Your task to perform on an android device: Empty the shopping cart on walmart.com. Add "asus rog" to the cart on walmart.com Image 0: 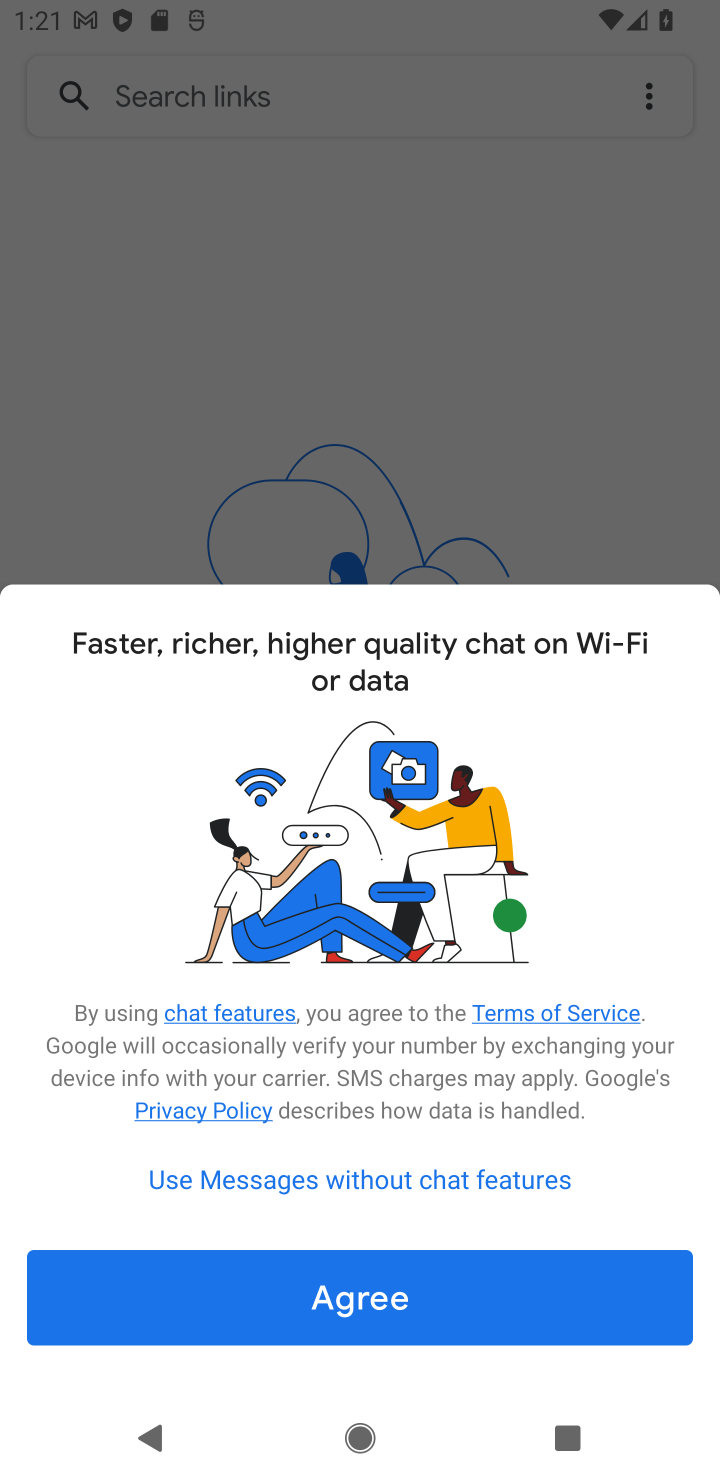
Step 0: press home button
Your task to perform on an android device: Empty the shopping cart on walmart.com. Add "asus rog" to the cart on walmart.com Image 1: 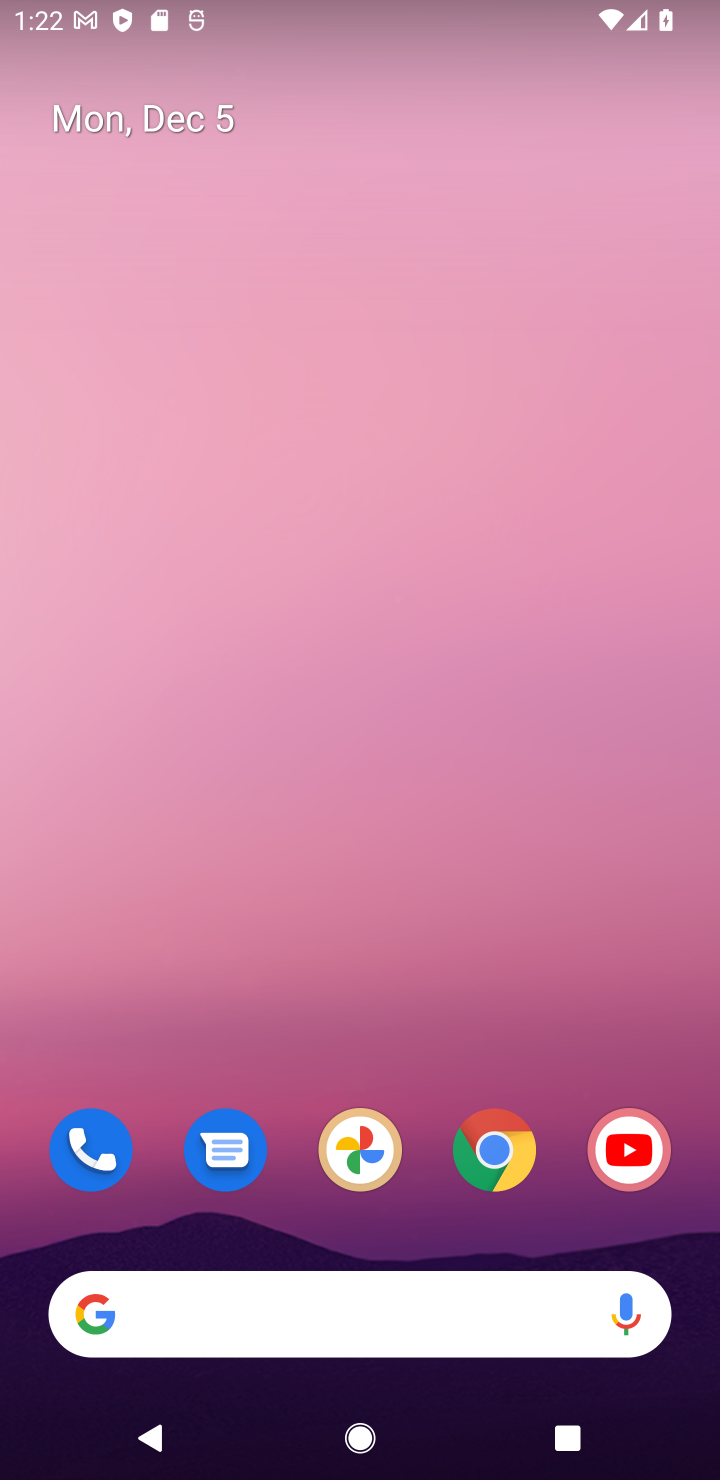
Step 1: click (503, 1149)
Your task to perform on an android device: Empty the shopping cart on walmart.com. Add "asus rog" to the cart on walmart.com Image 2: 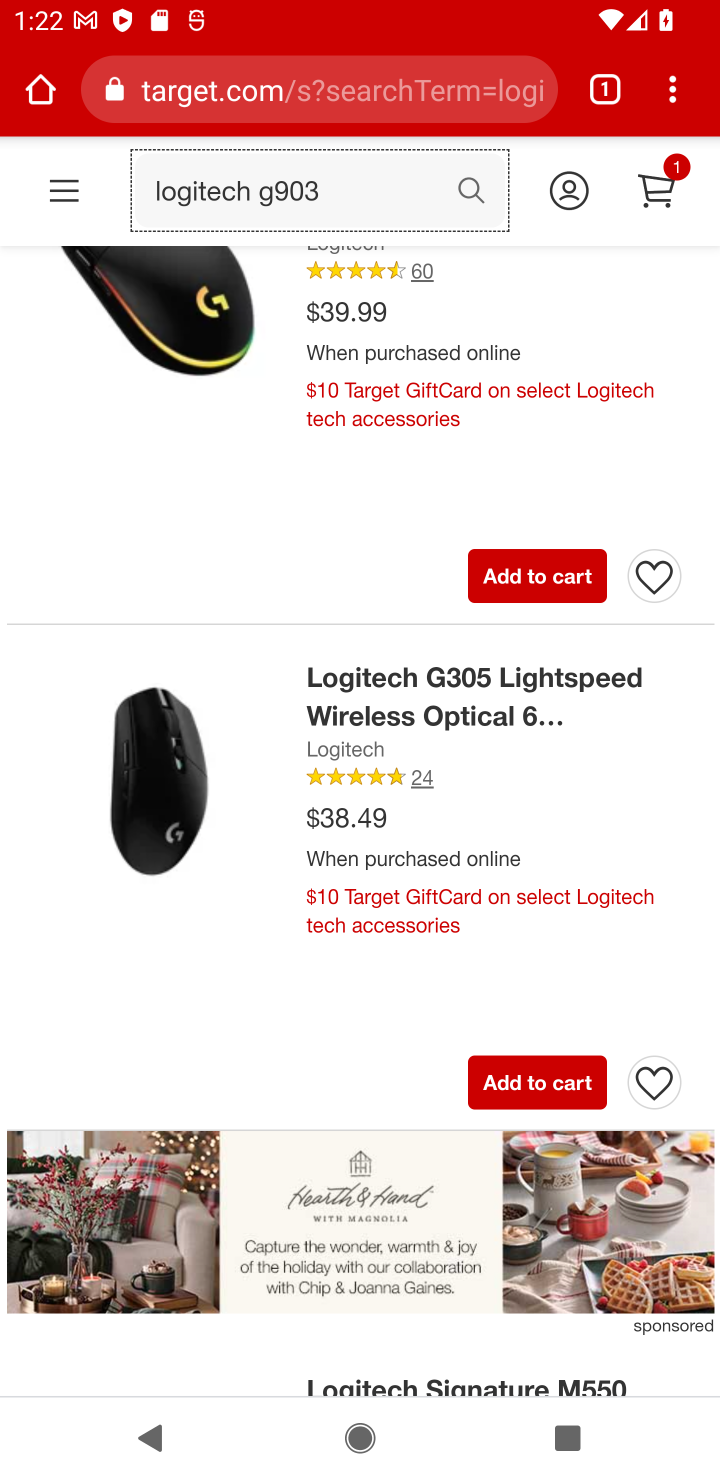
Step 2: click (391, 82)
Your task to perform on an android device: Empty the shopping cart on walmart.com. Add "asus rog" to the cart on walmart.com Image 3: 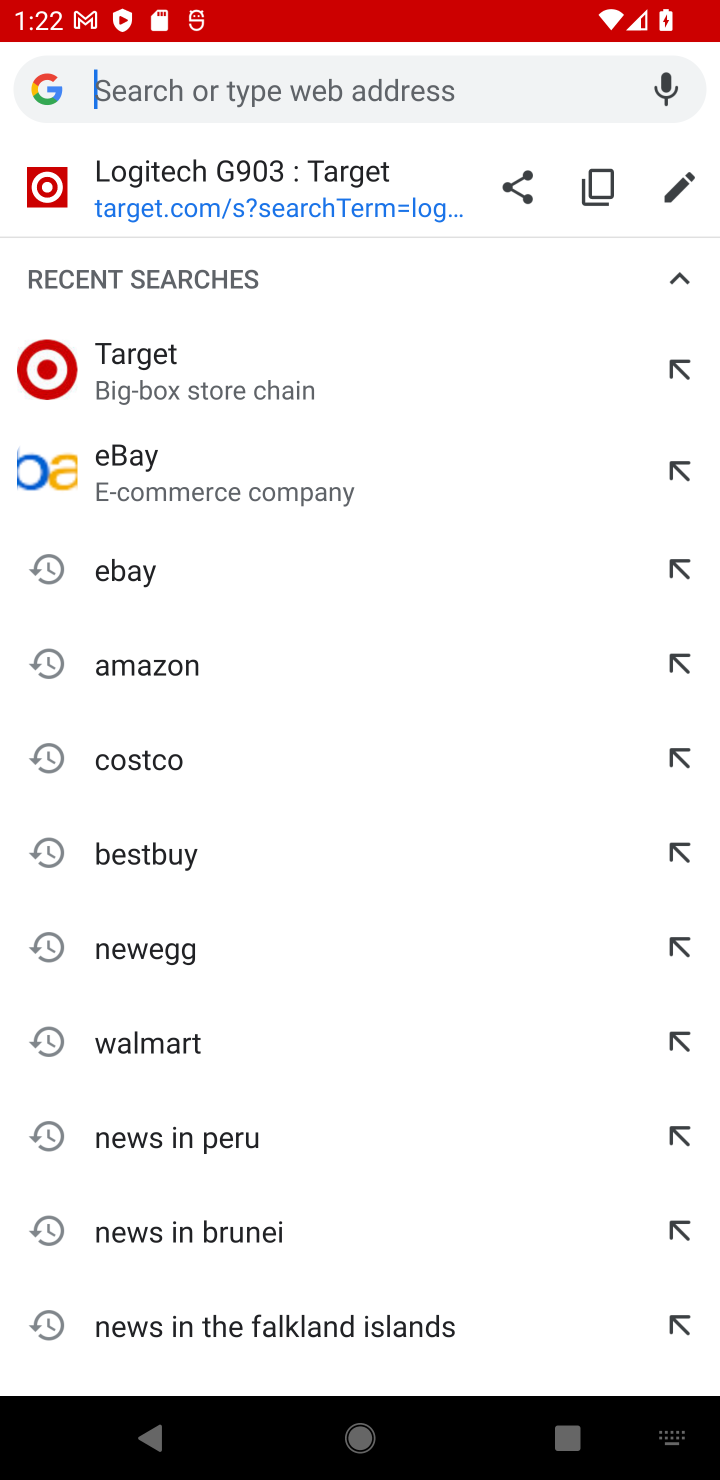
Step 3: press enter
Your task to perform on an android device: Empty the shopping cart on walmart.com. Add "asus rog" to the cart on walmart.com Image 4: 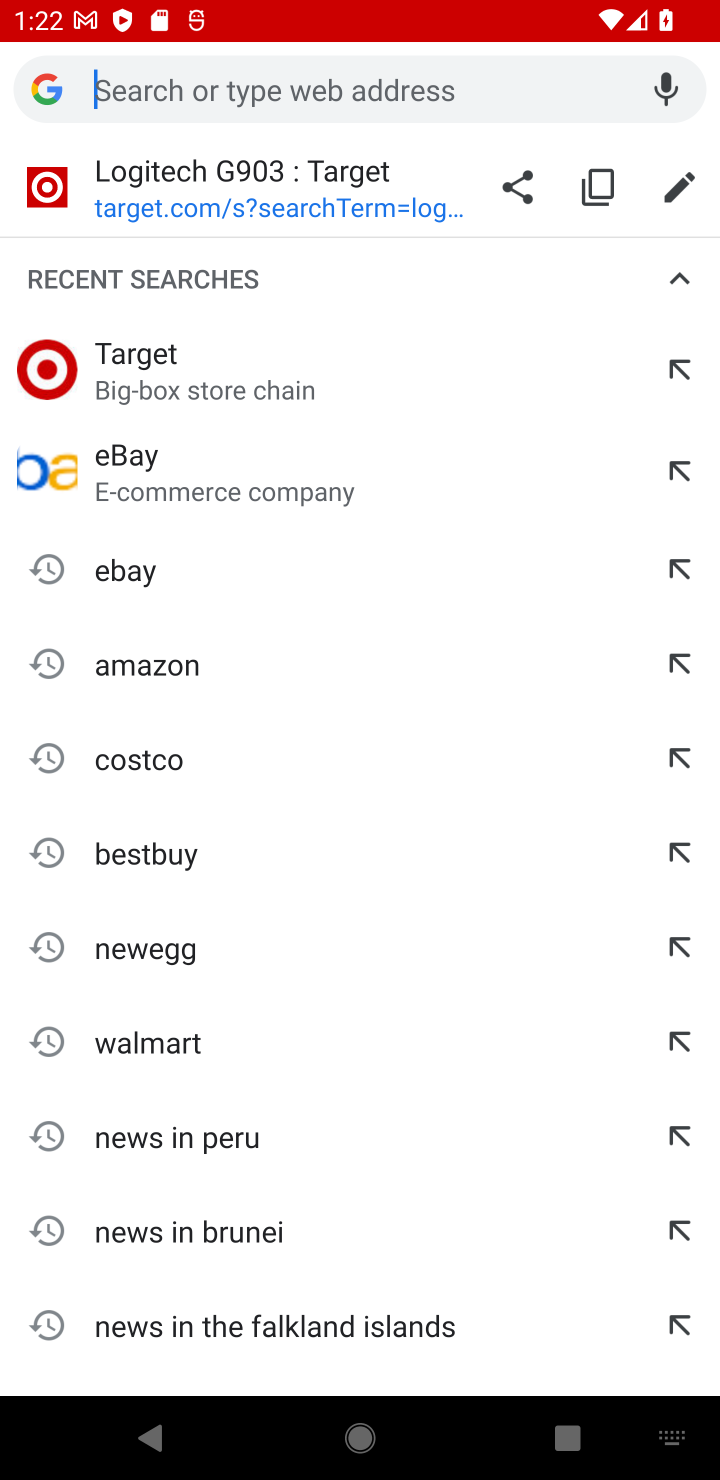
Step 4: type "walmart.com"
Your task to perform on an android device: Empty the shopping cart on walmart.com. Add "asus rog" to the cart on walmart.com Image 5: 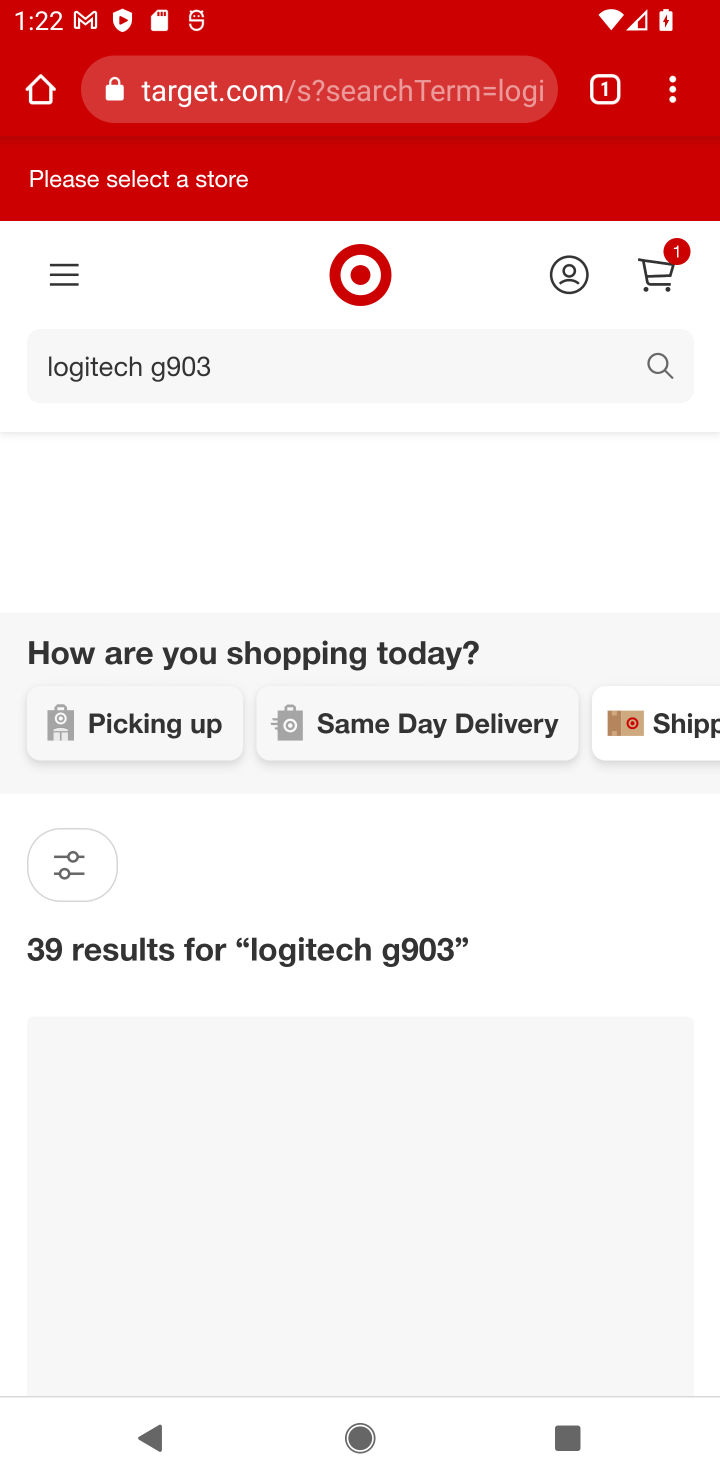
Step 5: click (363, 81)
Your task to perform on an android device: Empty the shopping cart on walmart.com. Add "asus rog" to the cart on walmart.com Image 6: 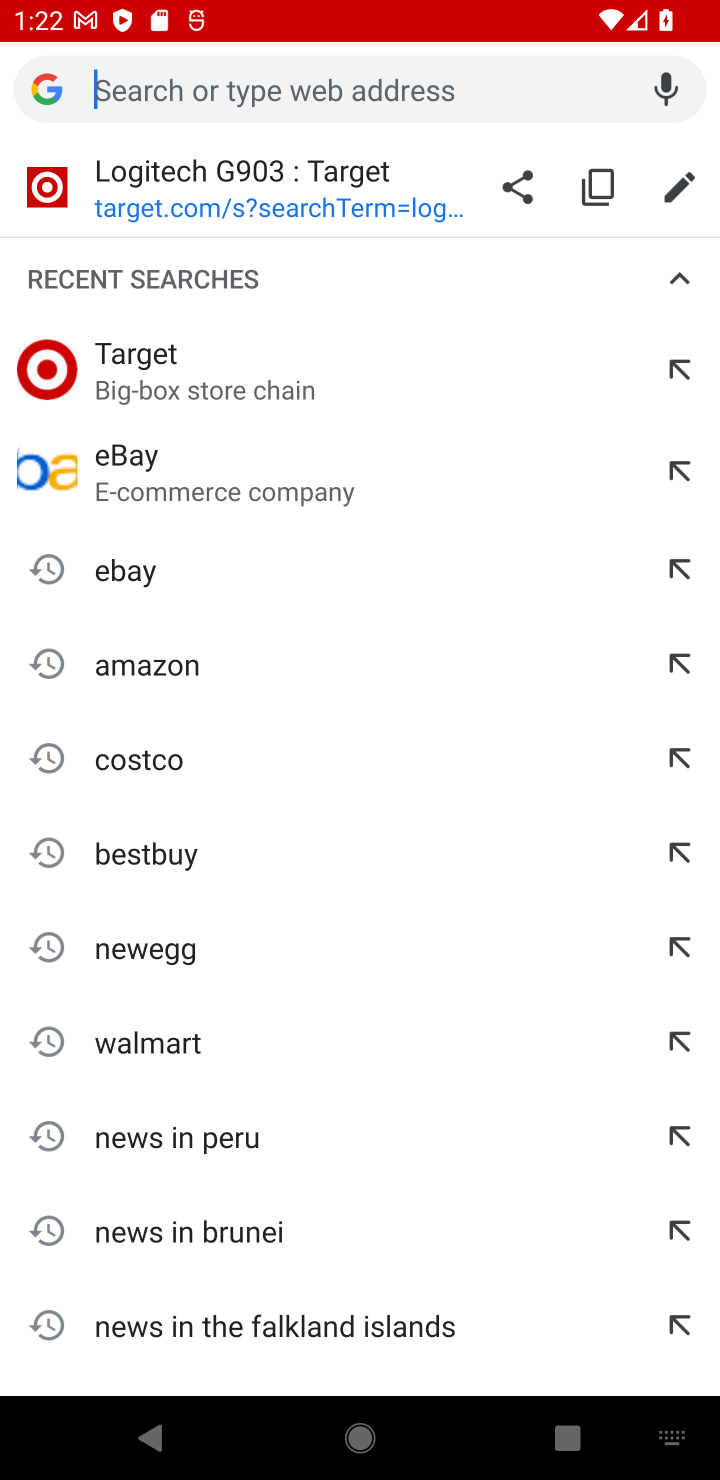
Step 6: type "walmart.com"
Your task to perform on an android device: Empty the shopping cart on walmart.com. Add "asus rog" to the cart on walmart.com Image 7: 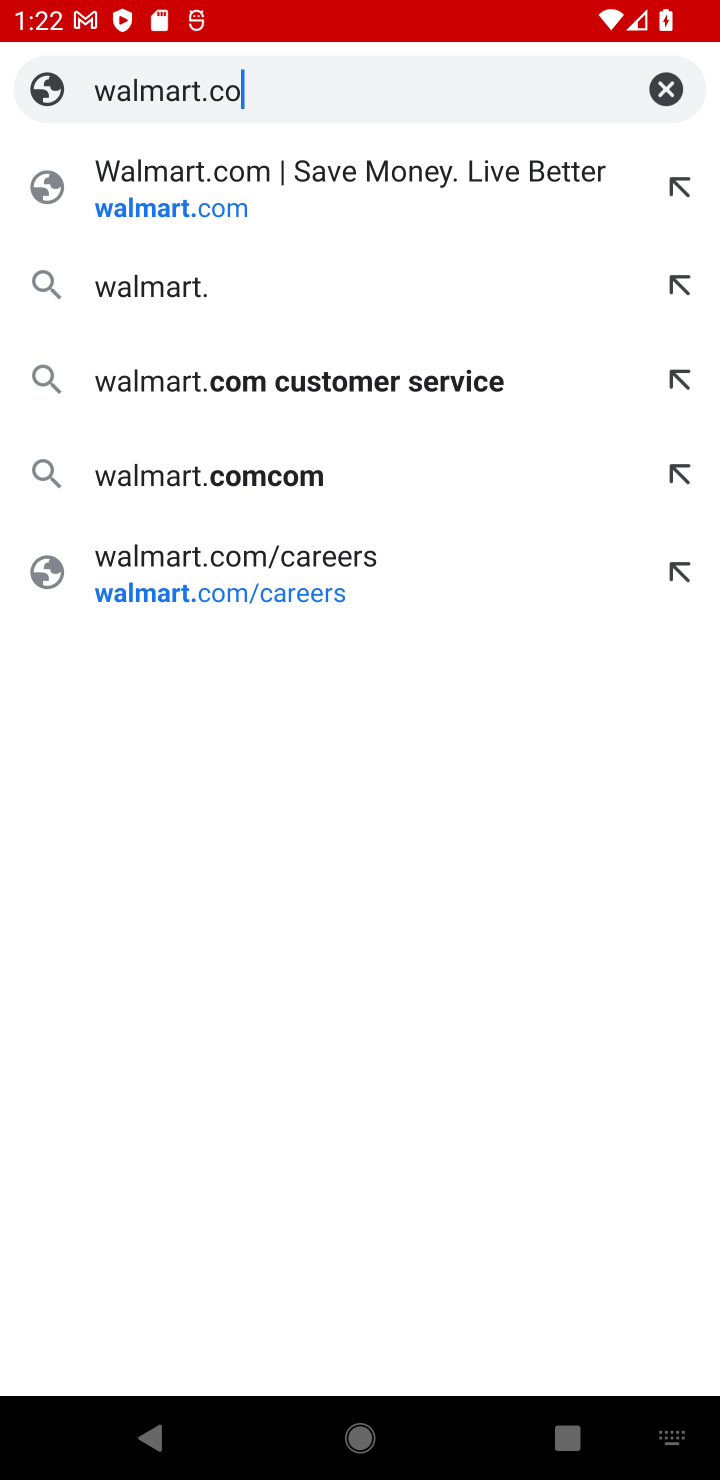
Step 7: press enter
Your task to perform on an android device: Empty the shopping cart on walmart.com. Add "asus rog" to the cart on walmart.com Image 8: 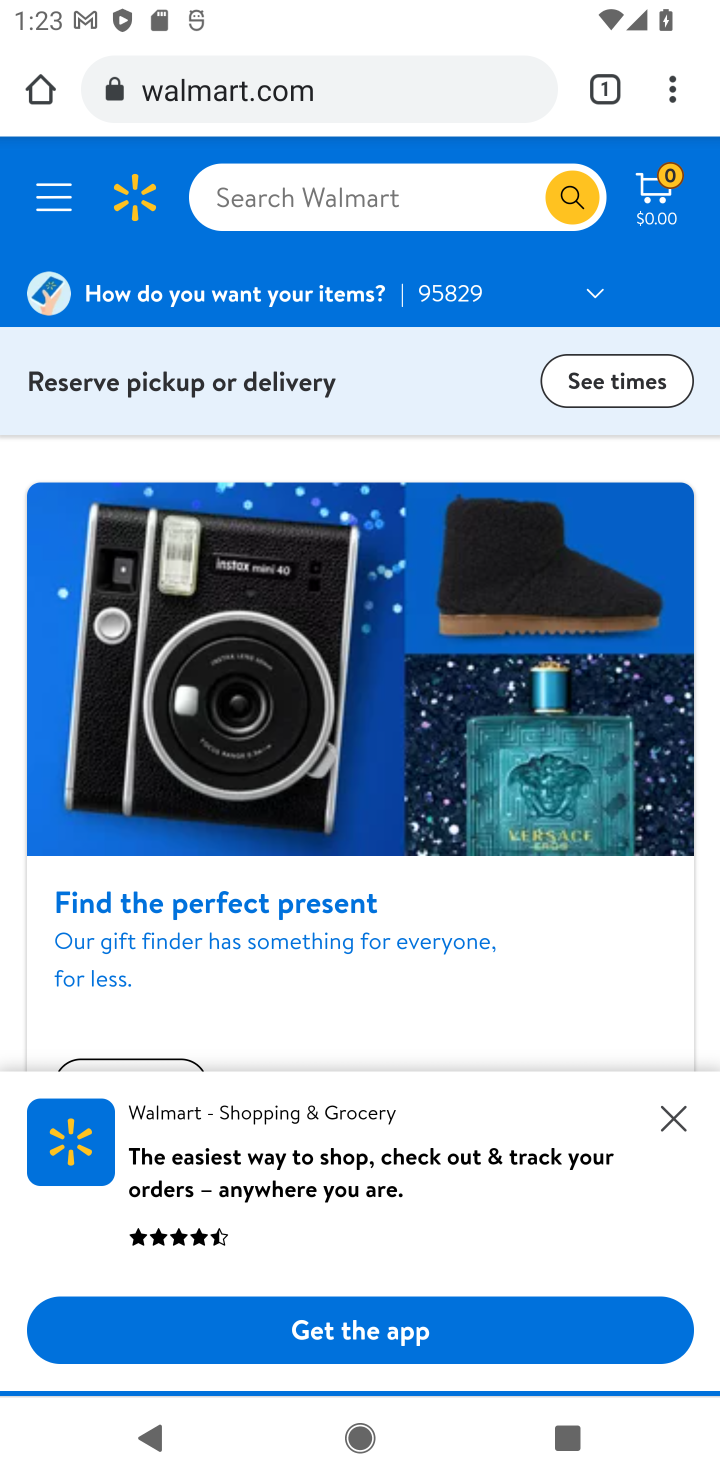
Step 8: click (453, 160)
Your task to perform on an android device: Empty the shopping cart on walmart.com. Add "asus rog" to the cart on walmart.com Image 9: 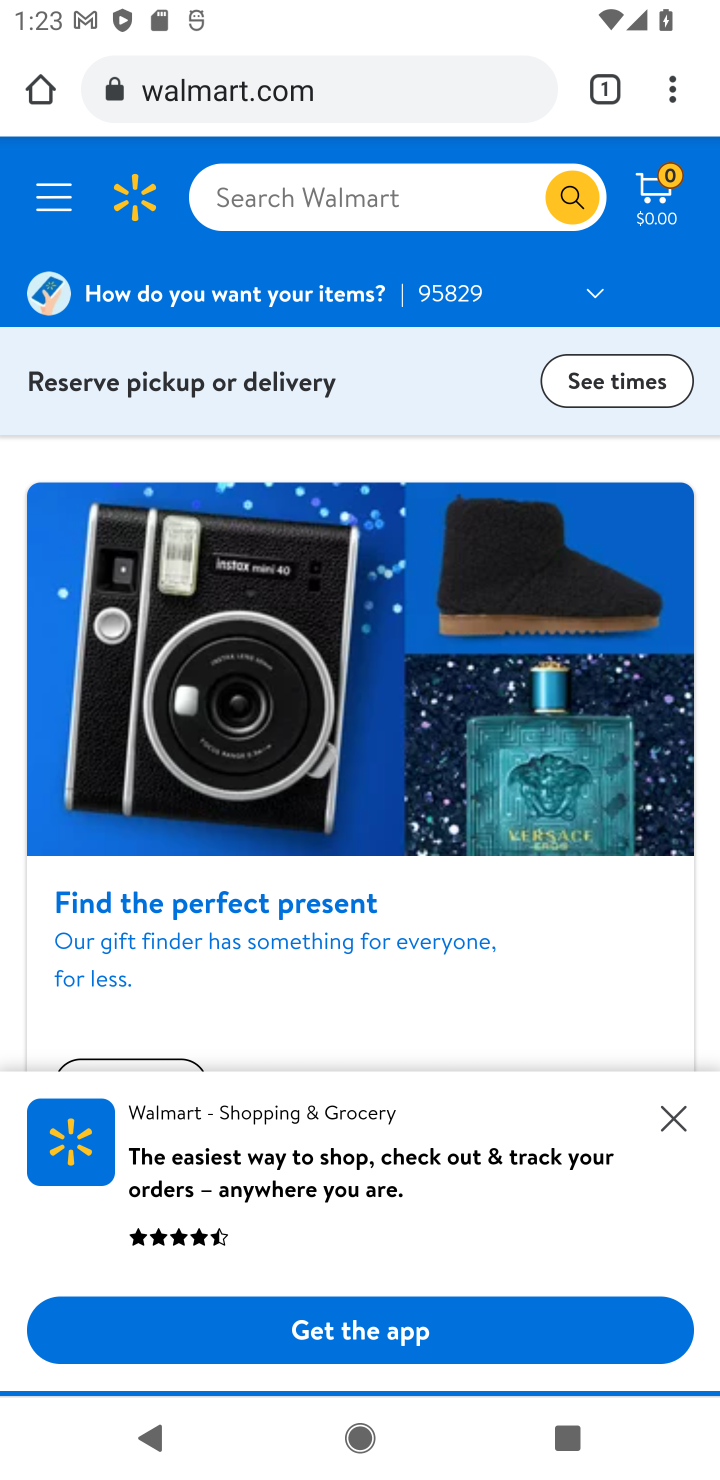
Step 9: click (450, 182)
Your task to perform on an android device: Empty the shopping cart on walmart.com. Add "asus rog" to the cart on walmart.com Image 10: 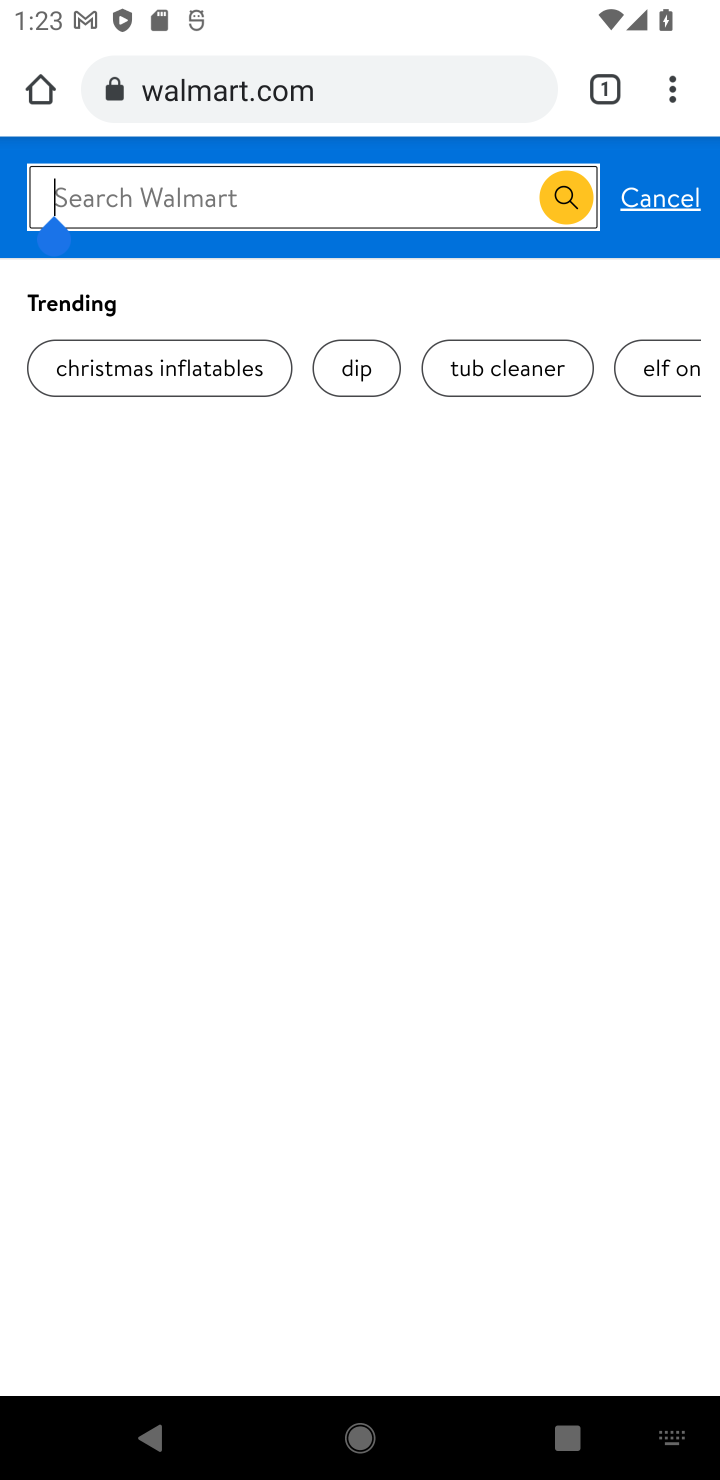
Step 10: type "asus rog"
Your task to perform on an android device: Empty the shopping cart on walmart.com. Add "asus rog" to the cart on walmart.com Image 11: 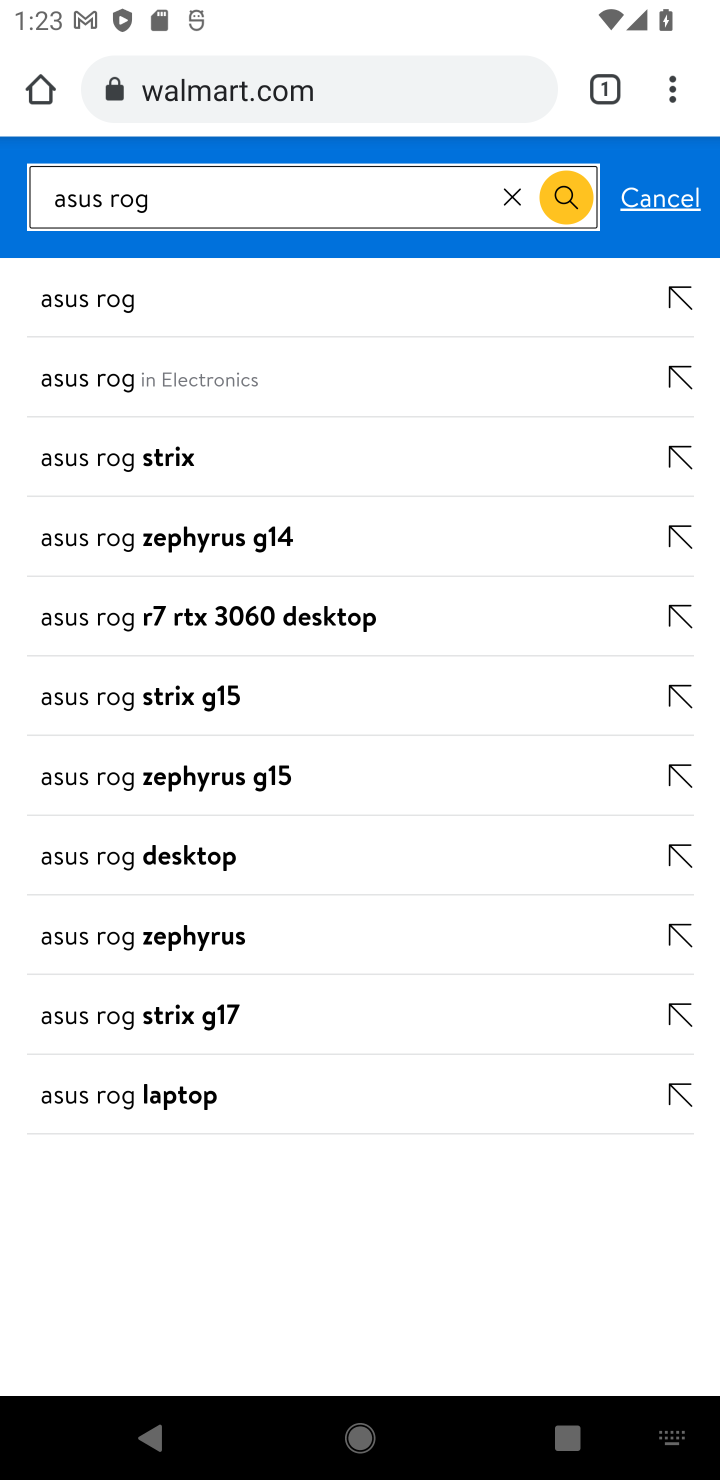
Step 11: click (99, 297)
Your task to perform on an android device: Empty the shopping cart on walmart.com. Add "asus rog" to the cart on walmart.com Image 12: 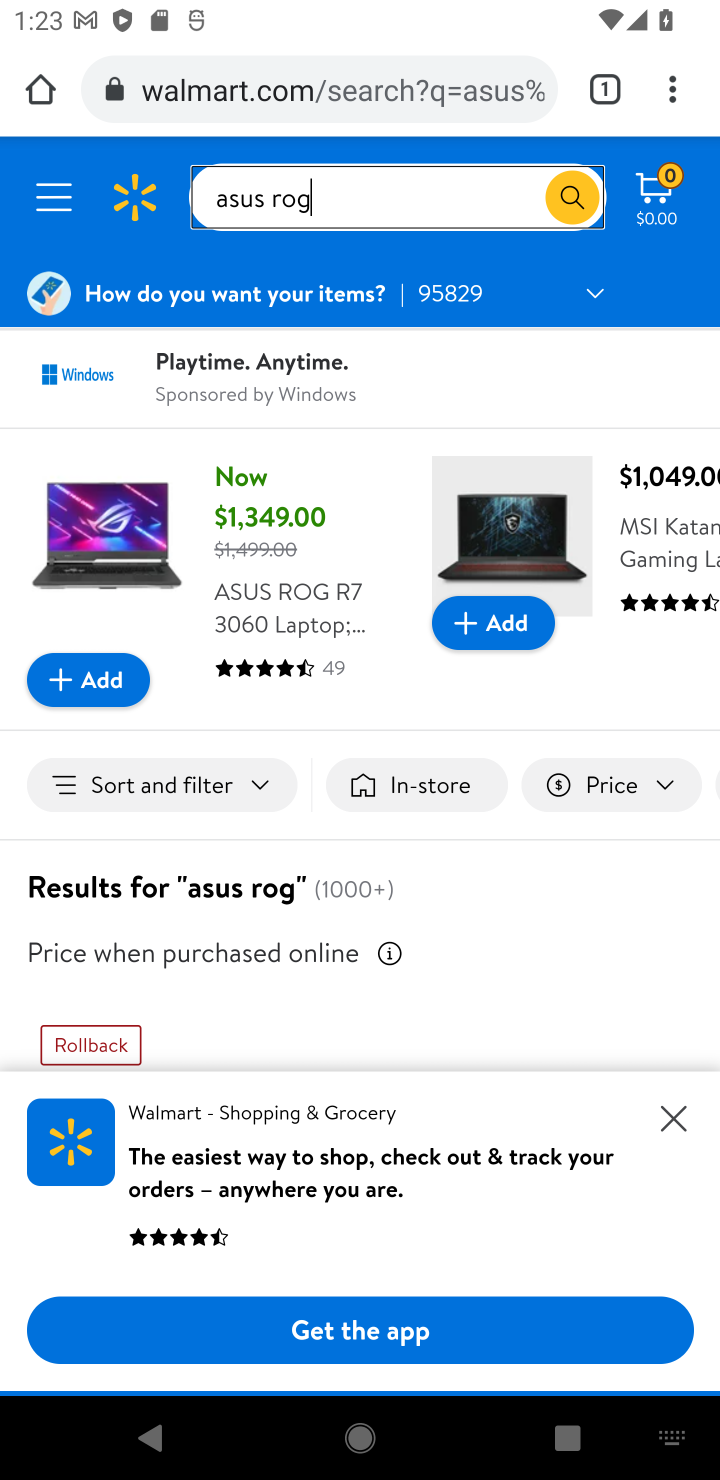
Step 12: click (678, 1125)
Your task to perform on an android device: Empty the shopping cart on walmart.com. Add "asus rog" to the cart on walmart.com Image 13: 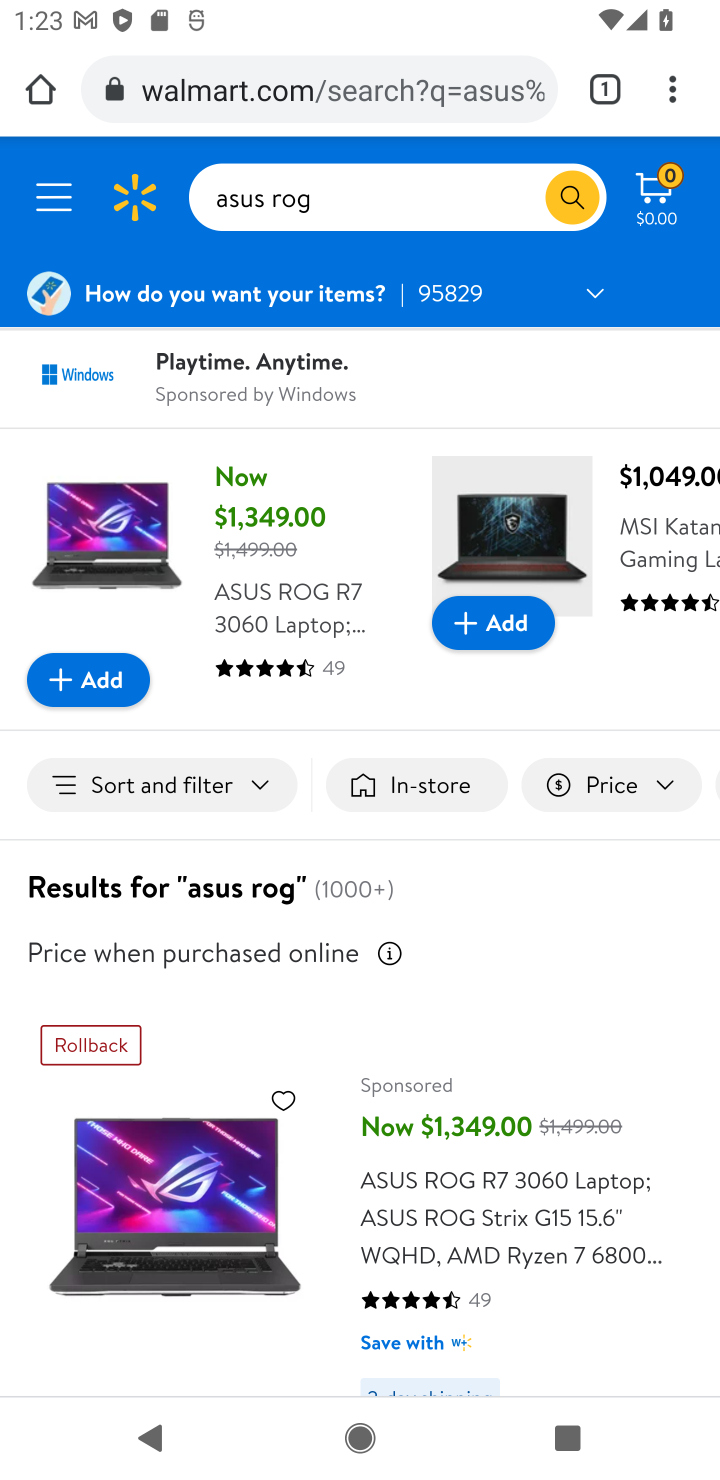
Step 13: click (136, 1195)
Your task to perform on an android device: Empty the shopping cart on walmart.com. Add "asus rog" to the cart on walmart.com Image 14: 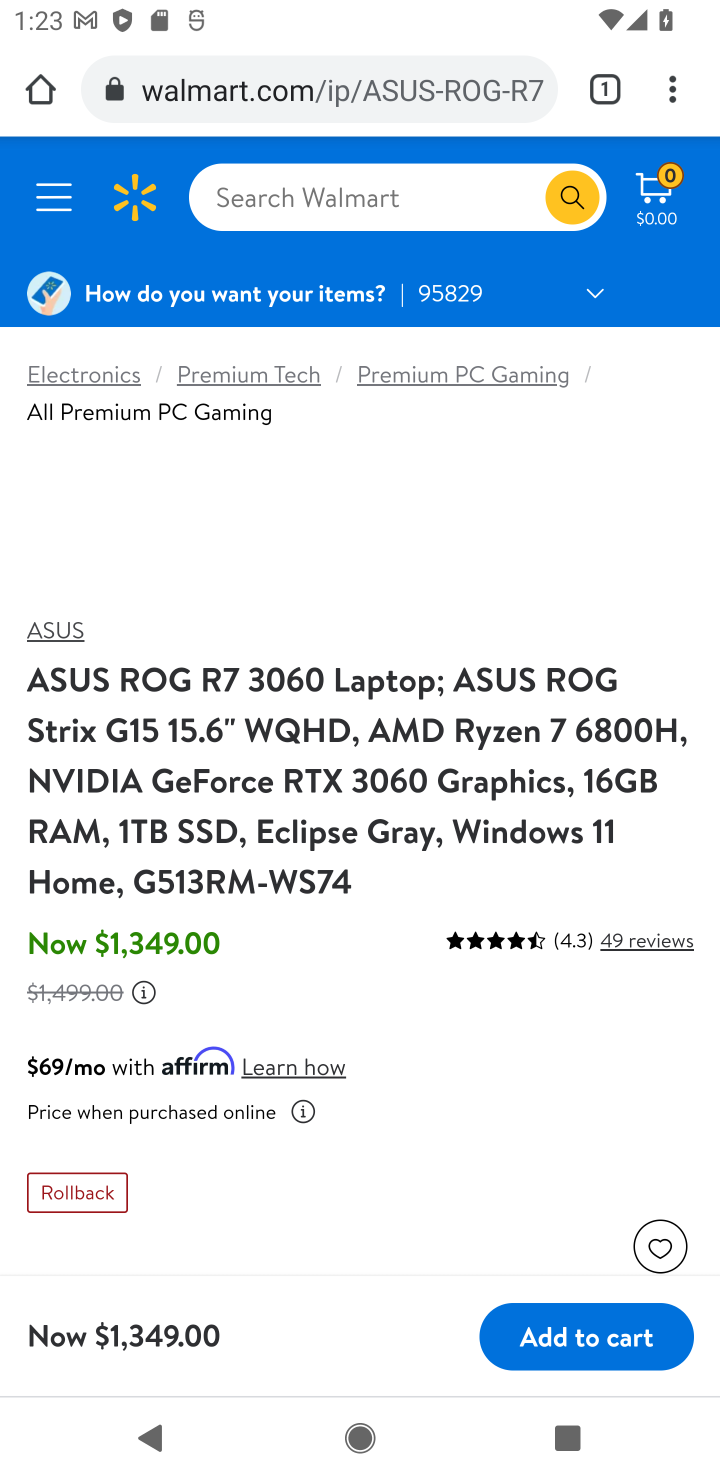
Step 14: drag from (609, 967) to (559, 696)
Your task to perform on an android device: Empty the shopping cart on walmart.com. Add "asus rog" to the cart on walmart.com Image 15: 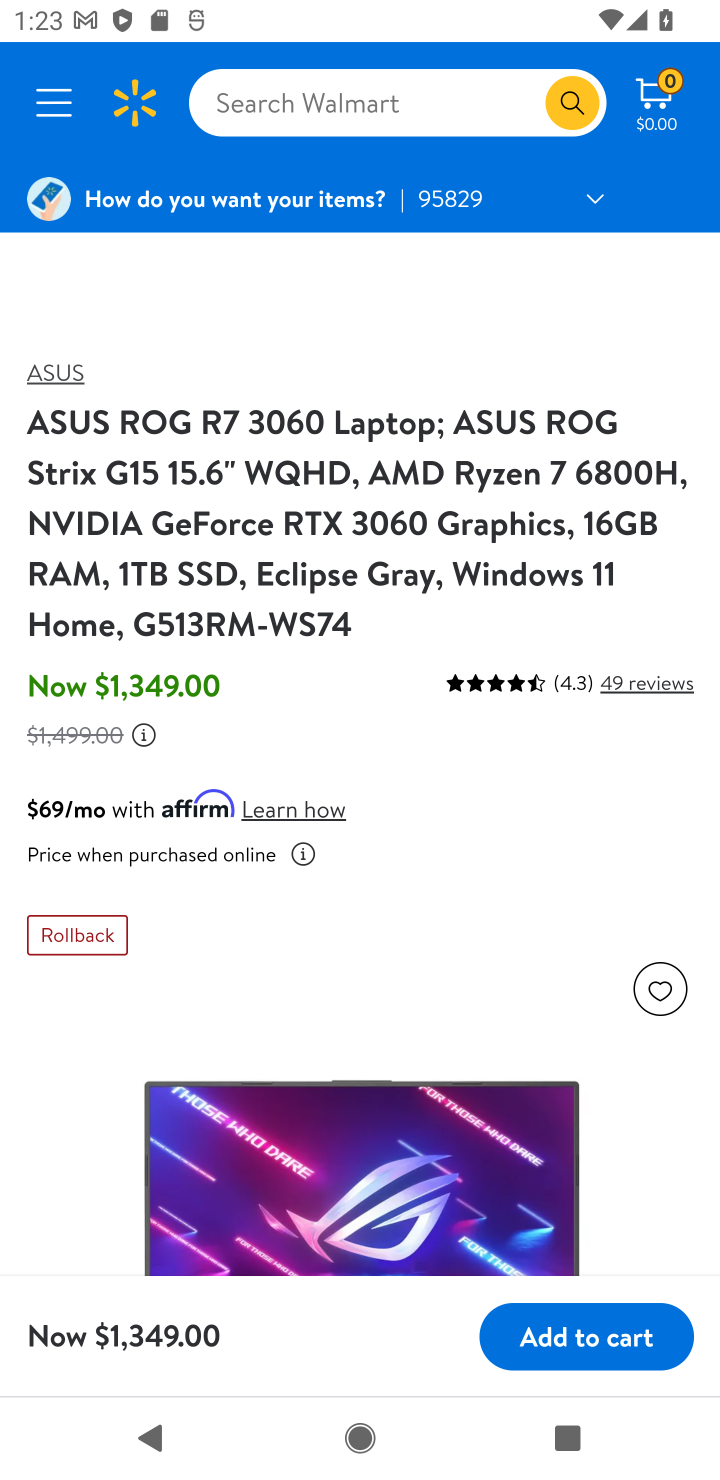
Step 15: drag from (541, 535) to (584, 431)
Your task to perform on an android device: Empty the shopping cart on walmart.com. Add "asus rog" to the cart on walmart.com Image 16: 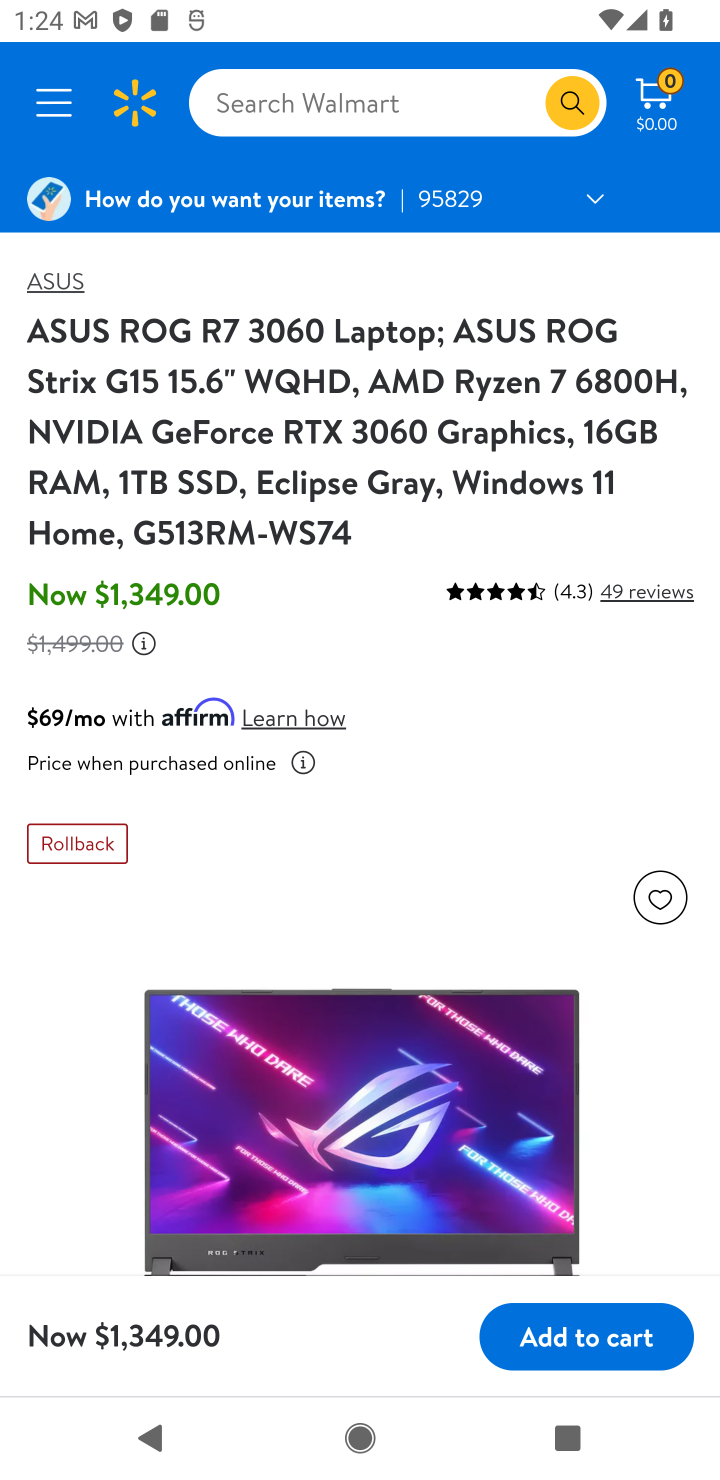
Step 16: click (584, 1332)
Your task to perform on an android device: Empty the shopping cart on walmart.com. Add "asus rog" to the cart on walmart.com Image 17: 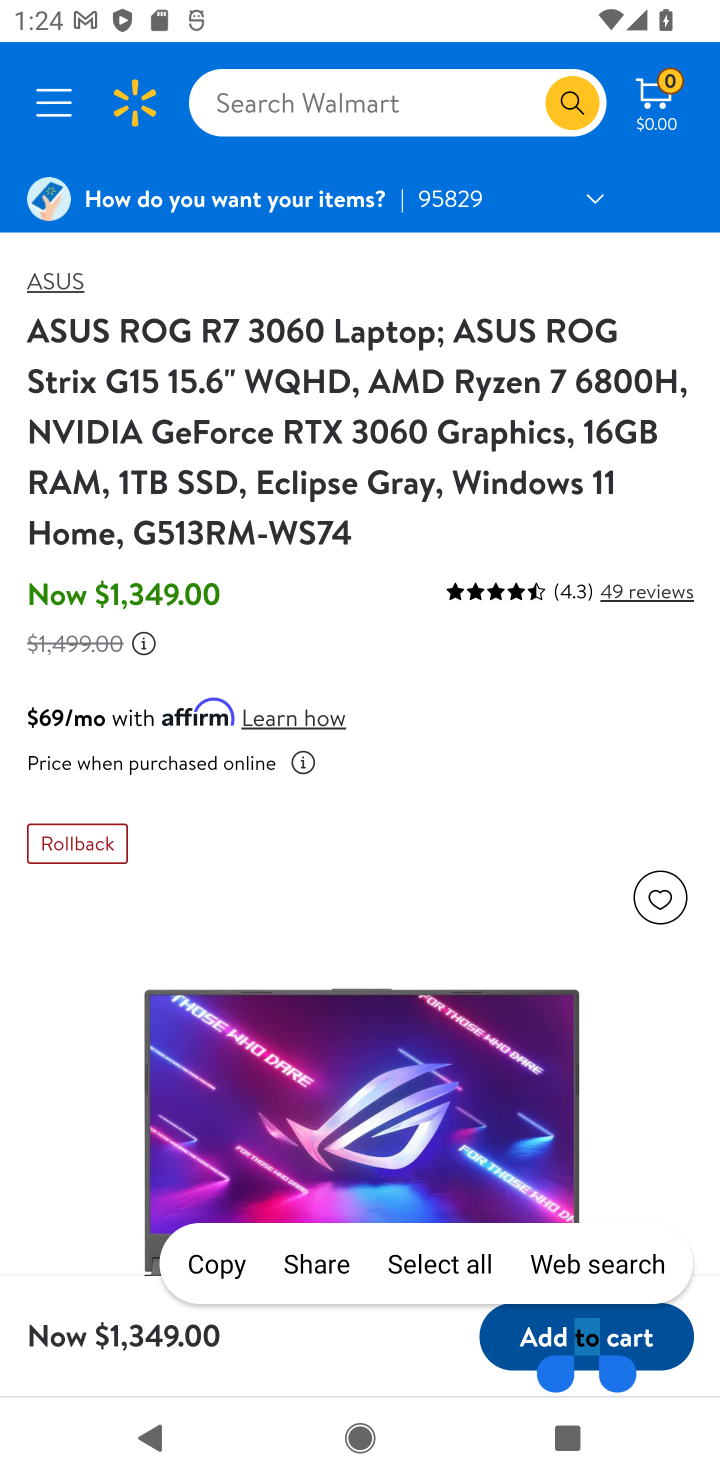
Step 17: click (520, 1341)
Your task to perform on an android device: Empty the shopping cart on walmart.com. Add "asus rog" to the cart on walmart.com Image 18: 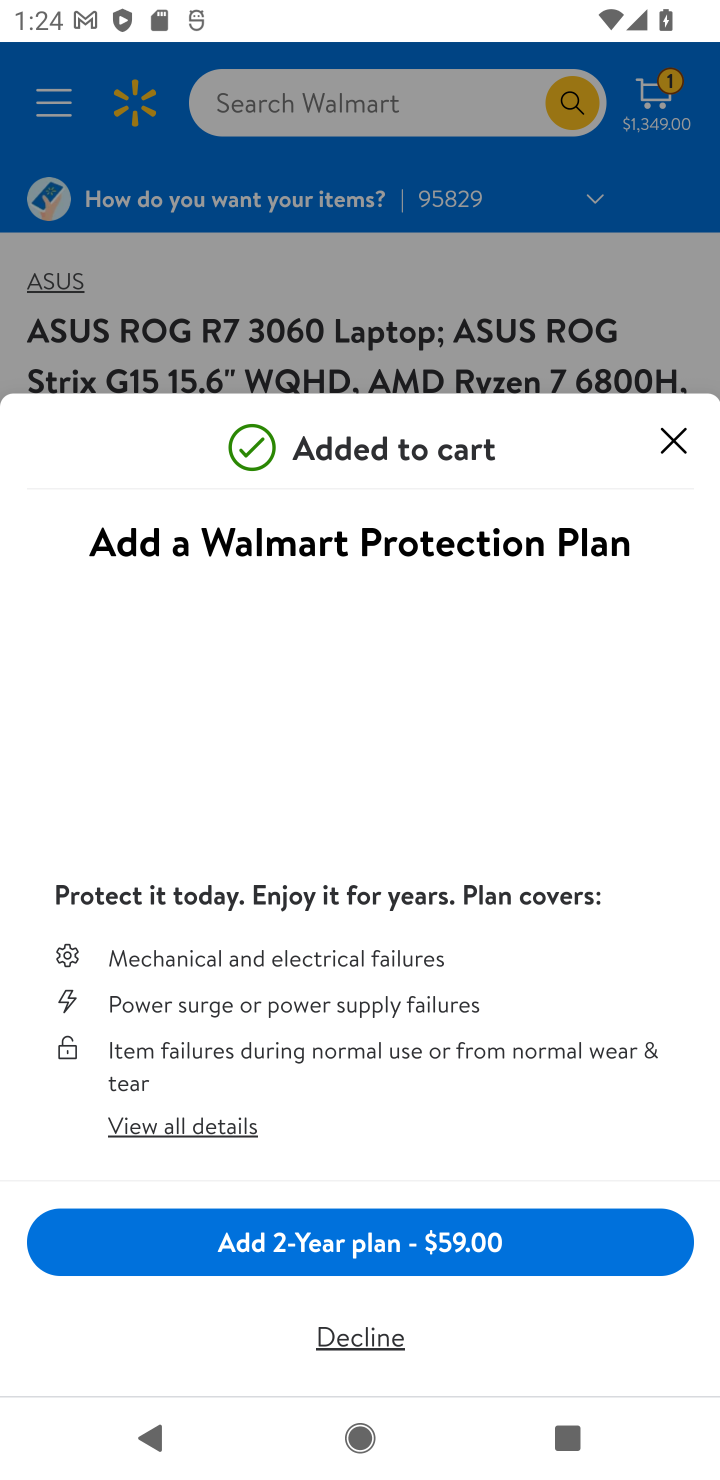
Step 18: task complete